Your task to perform on an android device: set the timer Image 0: 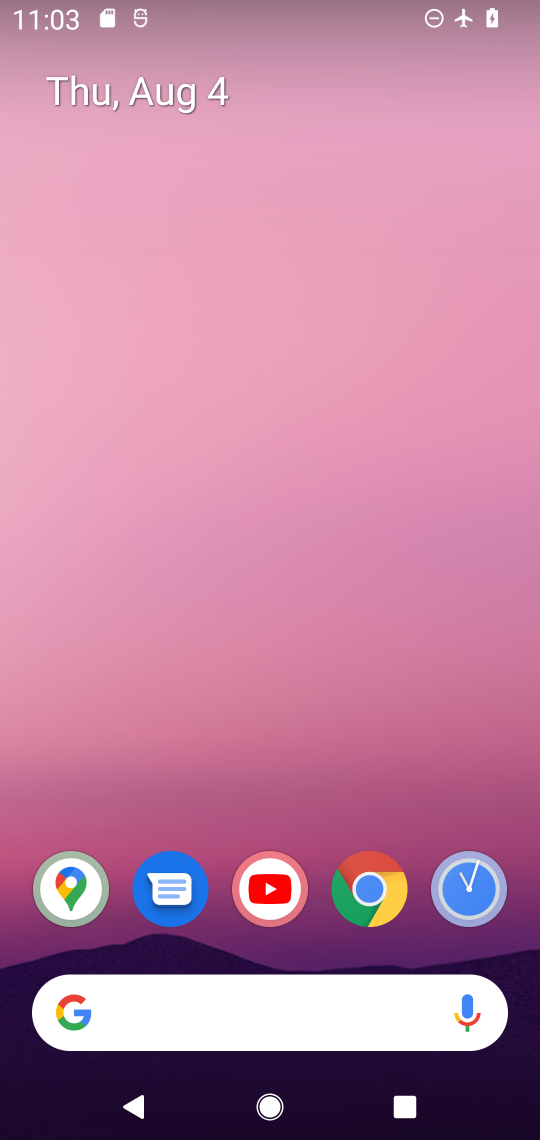
Step 0: press home button
Your task to perform on an android device: set the timer Image 1: 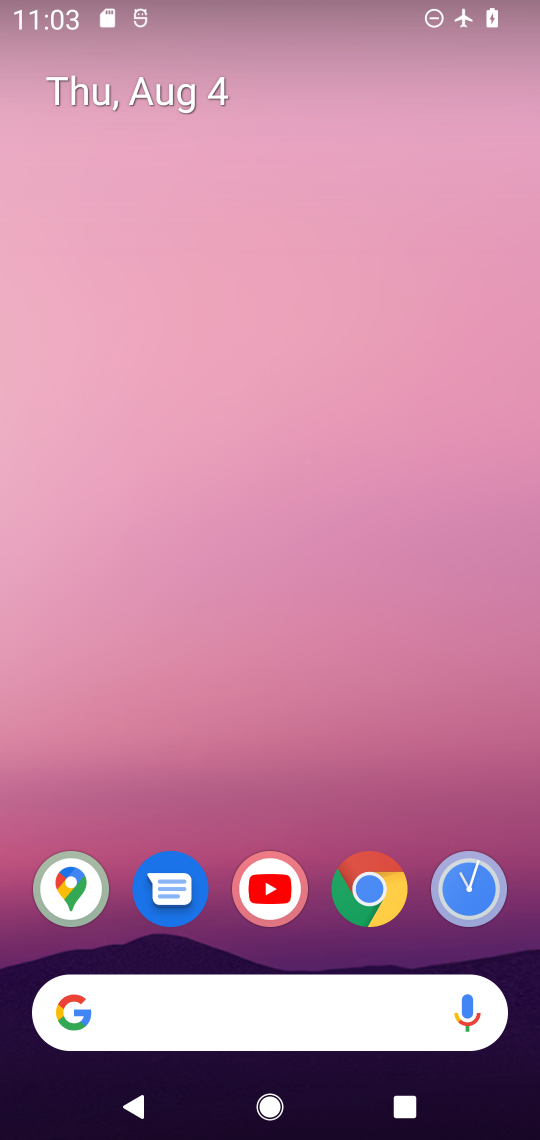
Step 1: drag from (325, 804) to (323, 183)
Your task to perform on an android device: set the timer Image 2: 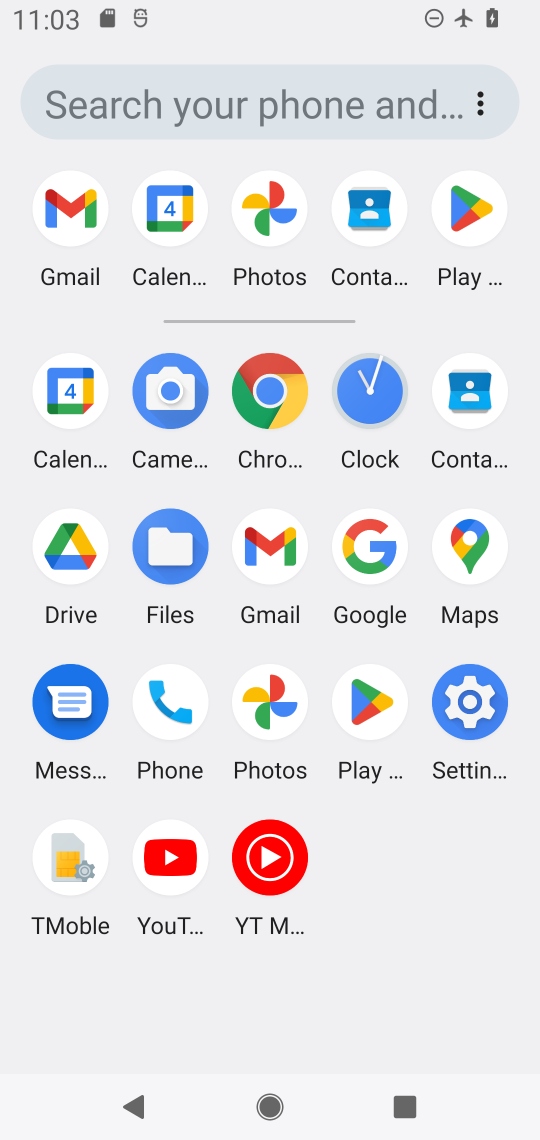
Step 2: click (362, 403)
Your task to perform on an android device: set the timer Image 3: 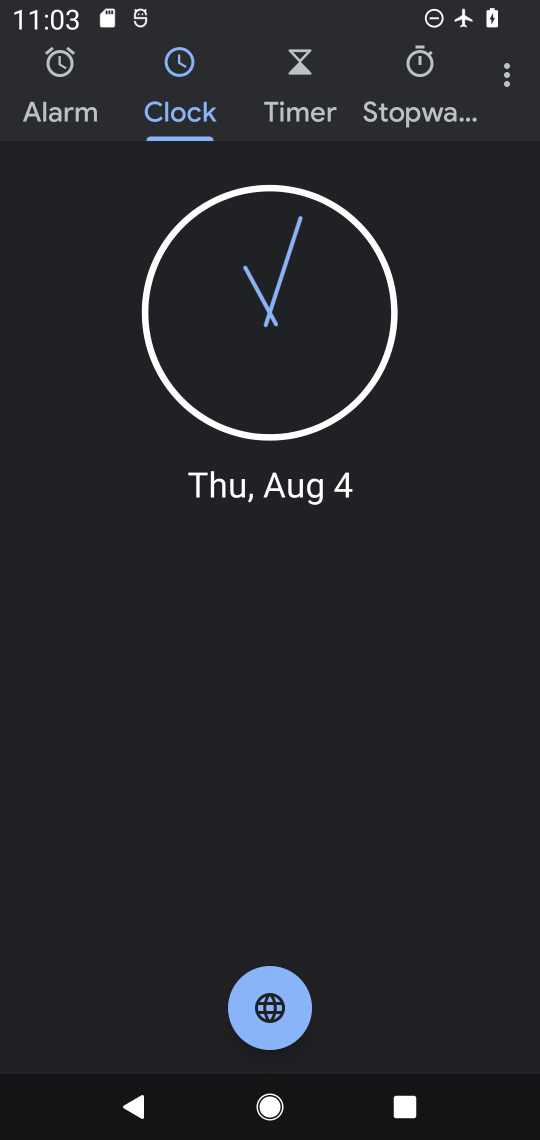
Step 3: click (311, 73)
Your task to perform on an android device: set the timer Image 4: 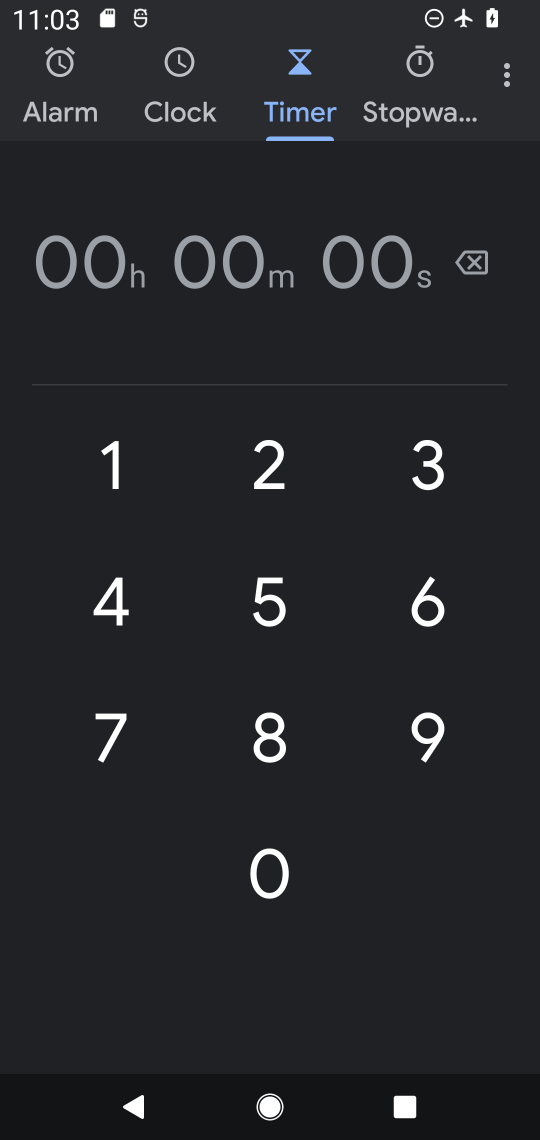
Step 4: click (274, 605)
Your task to perform on an android device: set the timer Image 5: 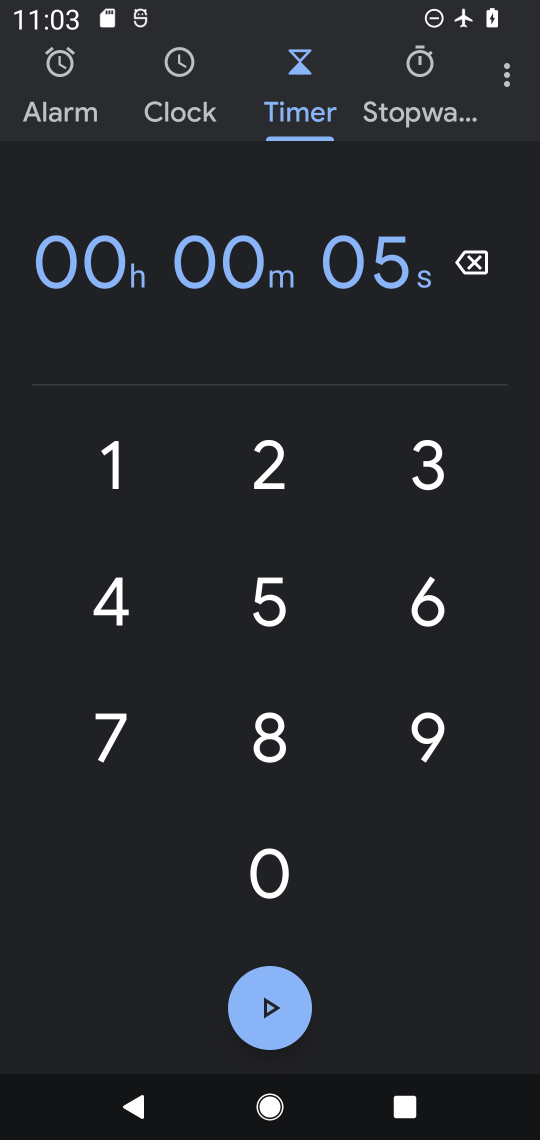
Step 5: task complete